Your task to perform on an android device: see creations saved in the google photos Image 0: 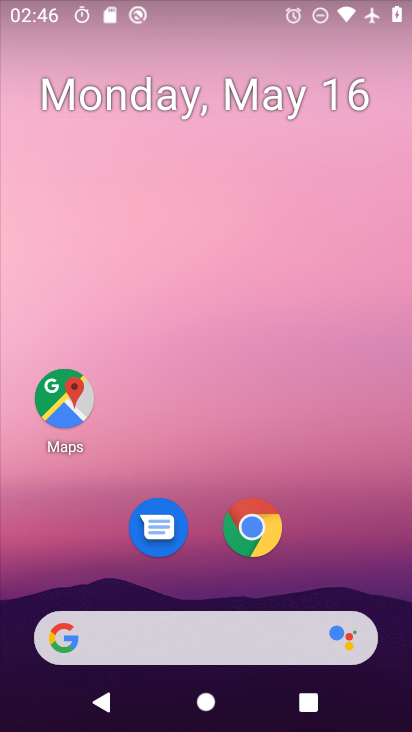
Step 0: press home button
Your task to perform on an android device: see creations saved in the google photos Image 1: 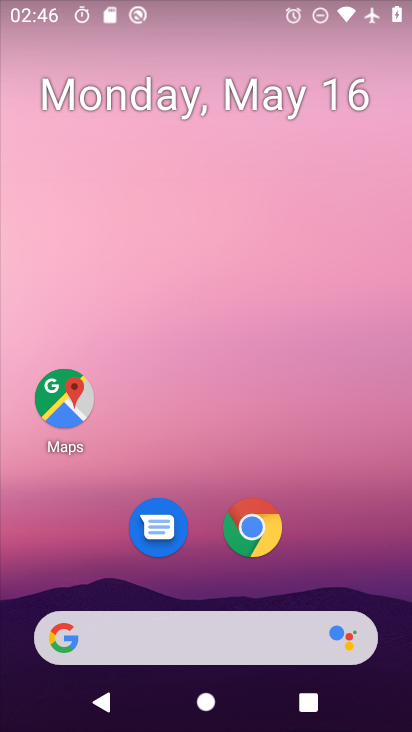
Step 1: drag from (131, 642) to (267, 194)
Your task to perform on an android device: see creations saved in the google photos Image 2: 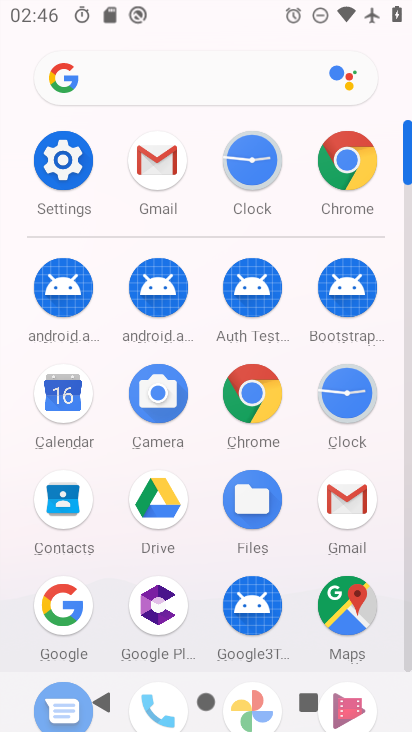
Step 2: drag from (206, 638) to (278, 359)
Your task to perform on an android device: see creations saved in the google photos Image 3: 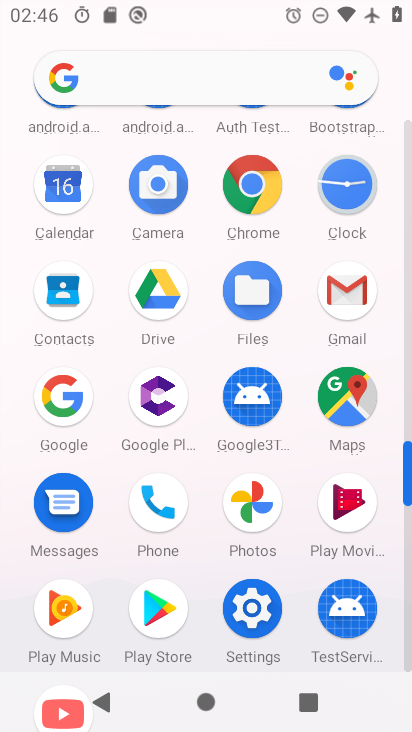
Step 3: click (244, 523)
Your task to perform on an android device: see creations saved in the google photos Image 4: 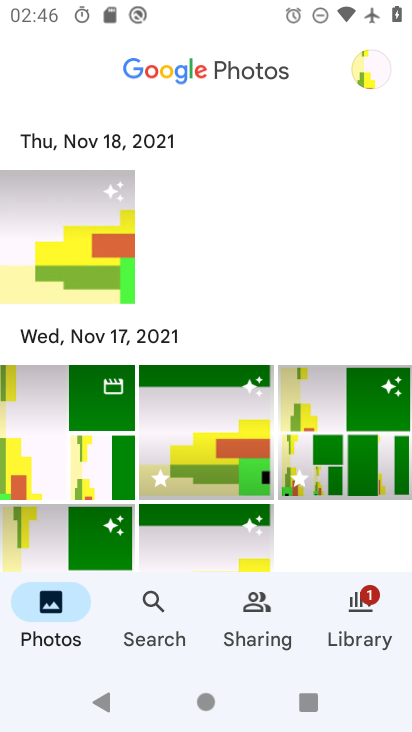
Step 4: click (155, 641)
Your task to perform on an android device: see creations saved in the google photos Image 5: 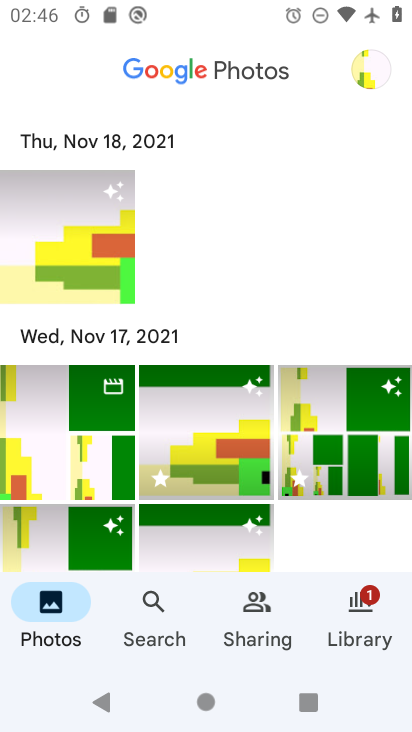
Step 5: click (163, 629)
Your task to perform on an android device: see creations saved in the google photos Image 6: 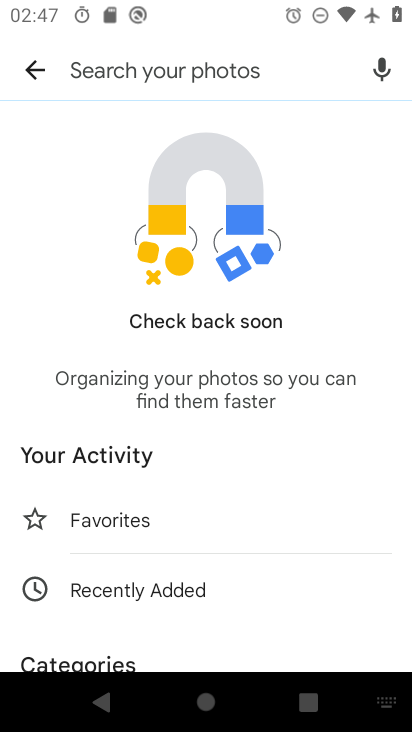
Step 6: drag from (244, 573) to (326, 121)
Your task to perform on an android device: see creations saved in the google photos Image 7: 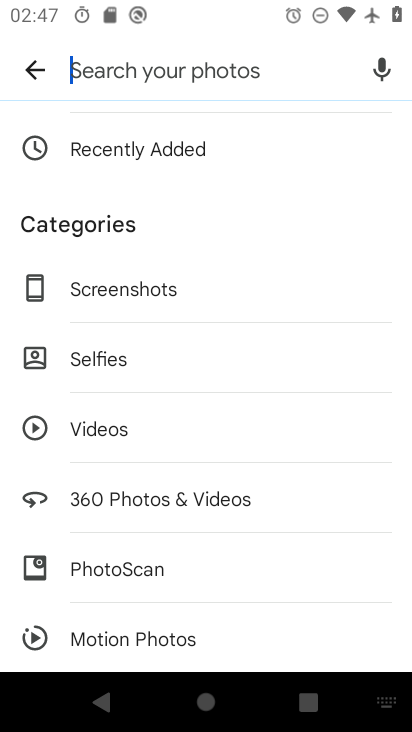
Step 7: drag from (191, 564) to (301, 114)
Your task to perform on an android device: see creations saved in the google photos Image 8: 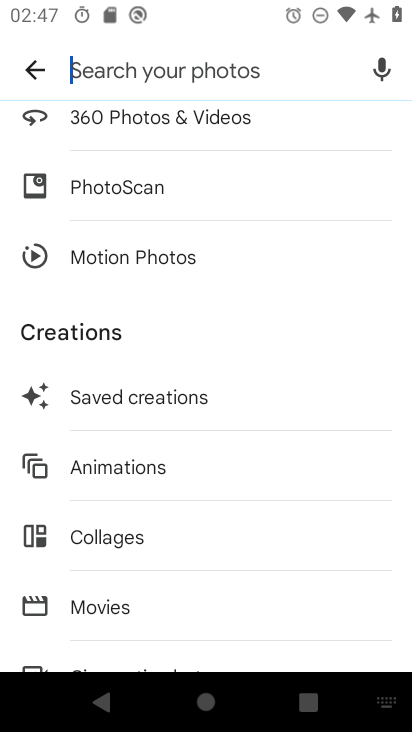
Step 8: click (153, 397)
Your task to perform on an android device: see creations saved in the google photos Image 9: 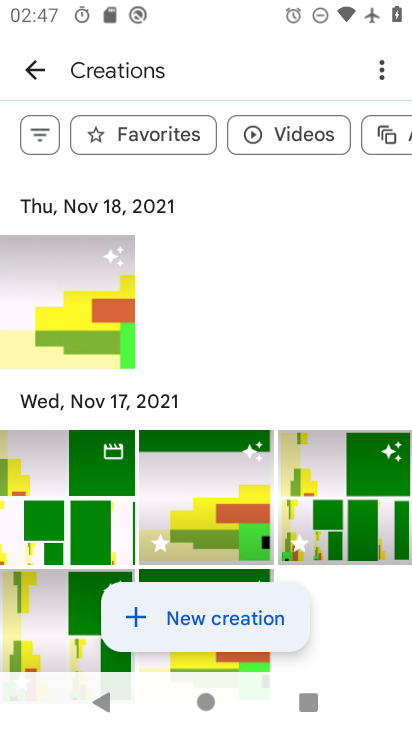
Step 9: task complete